Your task to perform on an android device: Open Google Chrome and open the bookmarks view Image 0: 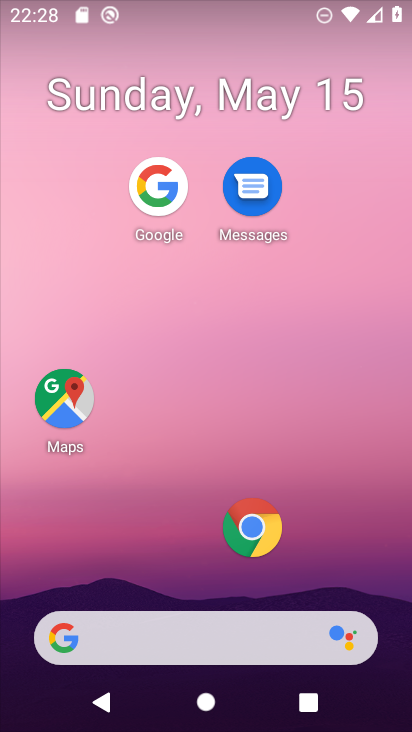
Step 0: press home button
Your task to perform on an android device: Open Google Chrome and open the bookmarks view Image 1: 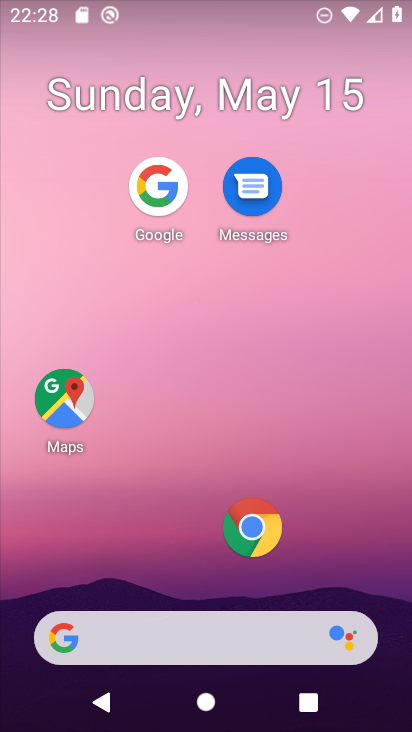
Step 1: click (259, 531)
Your task to perform on an android device: Open Google Chrome and open the bookmarks view Image 2: 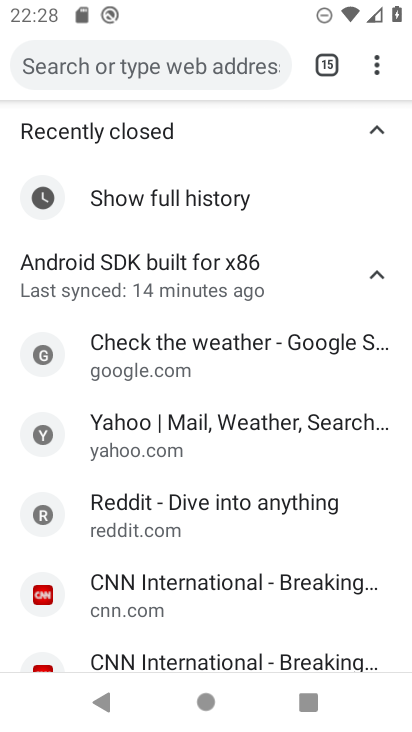
Step 2: task complete